Your task to perform on an android device: Show me recent news Image 0: 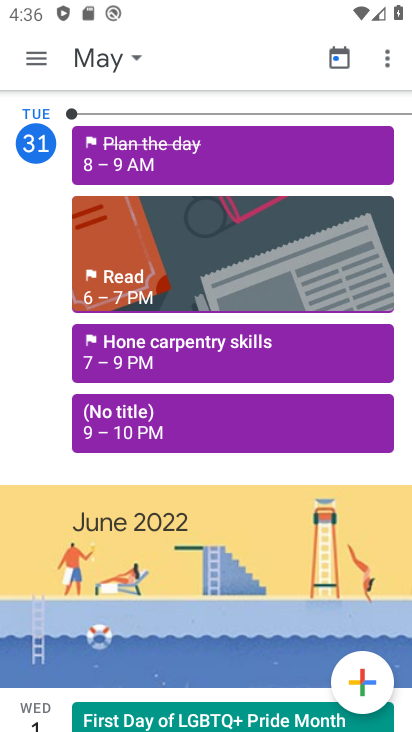
Step 0: press home button
Your task to perform on an android device: Show me recent news Image 1: 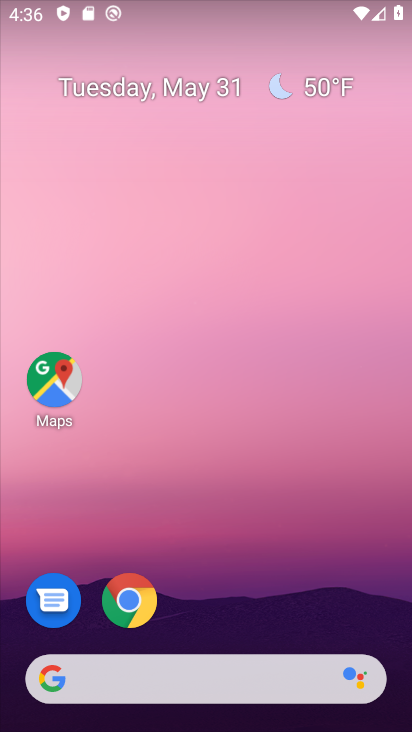
Step 1: drag from (256, 580) to (236, 70)
Your task to perform on an android device: Show me recent news Image 2: 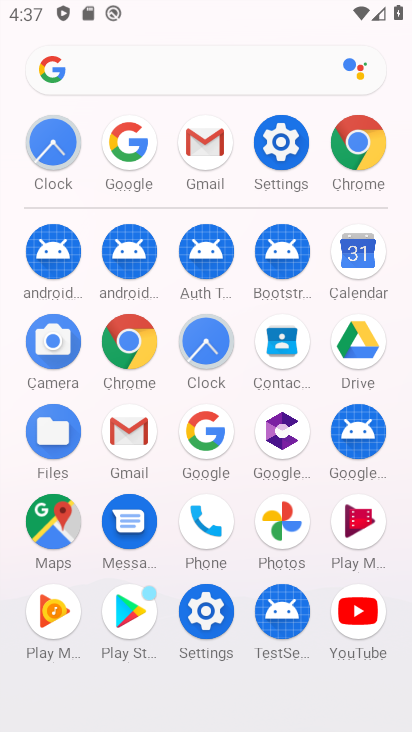
Step 2: click (127, 141)
Your task to perform on an android device: Show me recent news Image 3: 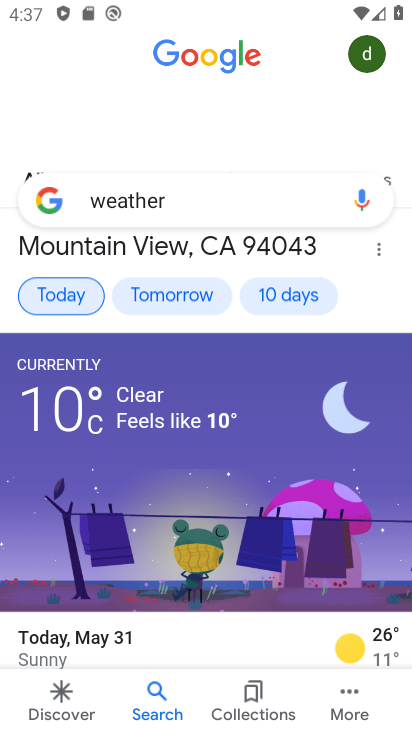
Step 3: click (261, 185)
Your task to perform on an android device: Show me recent news Image 4: 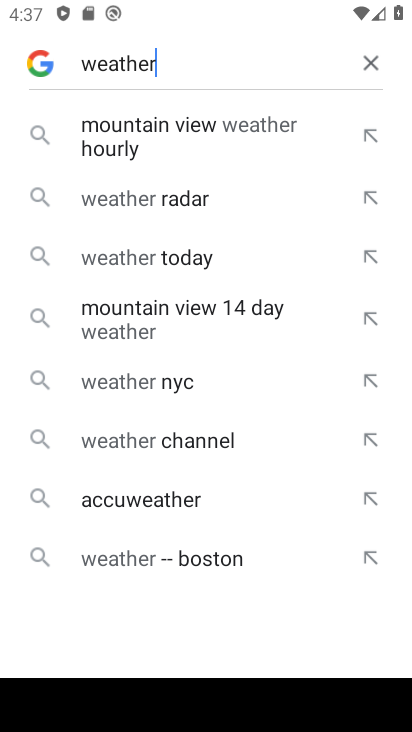
Step 4: click (371, 63)
Your task to perform on an android device: Show me recent news Image 5: 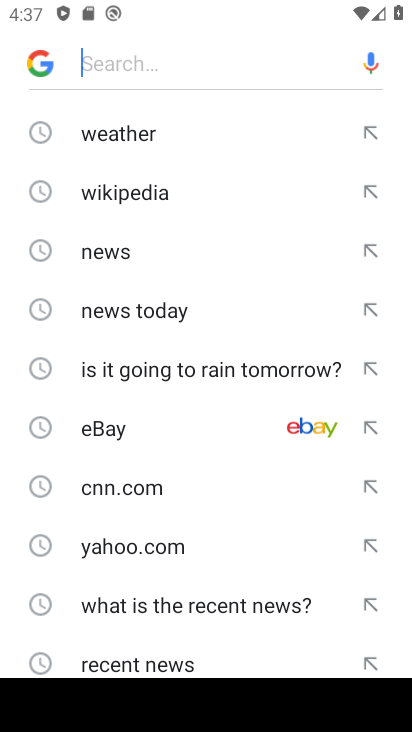
Step 5: type "recent news"
Your task to perform on an android device: Show me recent news Image 6: 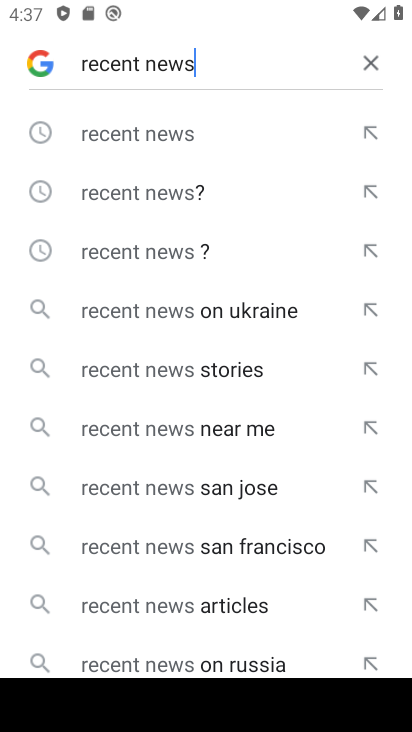
Step 6: click (155, 140)
Your task to perform on an android device: Show me recent news Image 7: 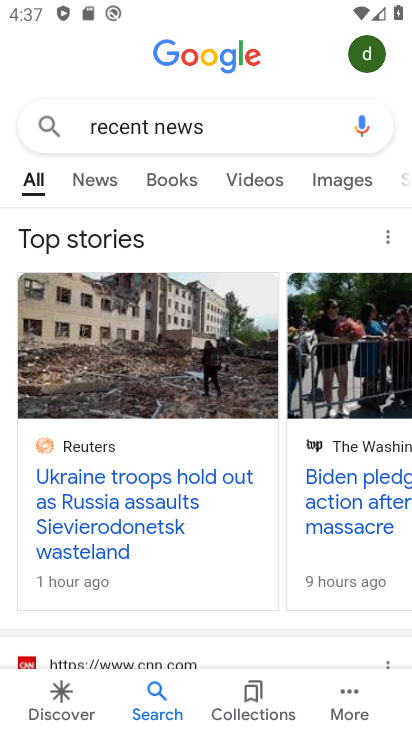
Step 7: click (121, 535)
Your task to perform on an android device: Show me recent news Image 8: 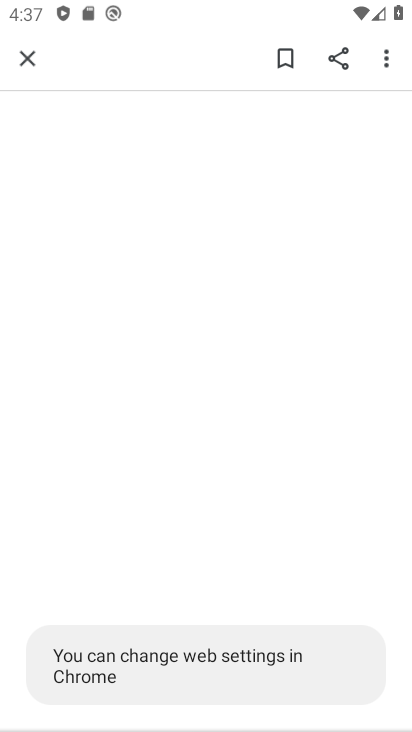
Step 8: click (121, 535)
Your task to perform on an android device: Show me recent news Image 9: 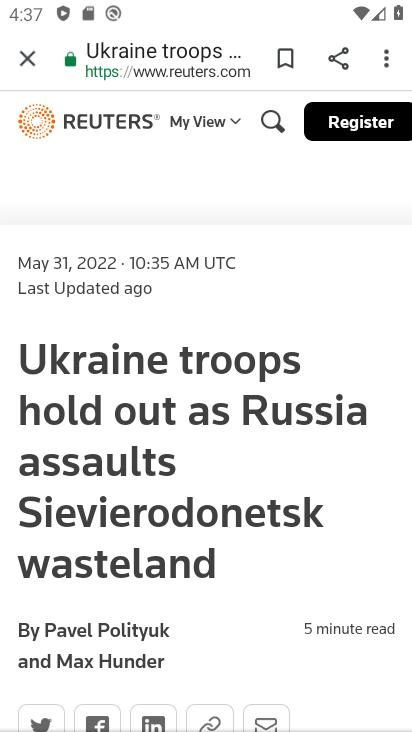
Step 9: task complete